Your task to perform on an android device: Open Reddit.com Image 0: 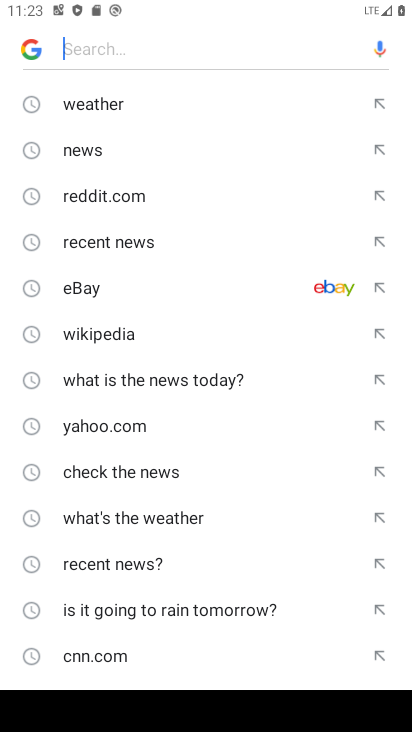
Step 0: press back button
Your task to perform on an android device: Open Reddit.com Image 1: 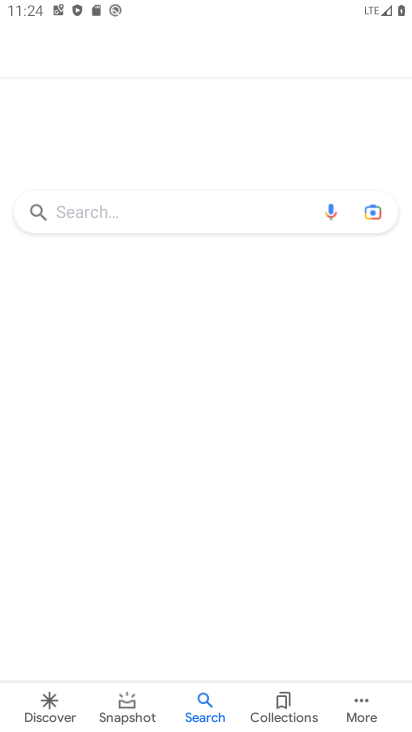
Step 1: press back button
Your task to perform on an android device: Open Reddit.com Image 2: 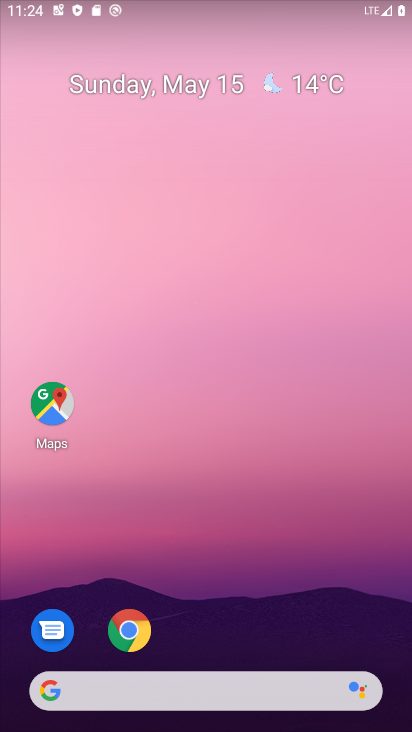
Step 2: click (126, 625)
Your task to perform on an android device: Open Reddit.com Image 3: 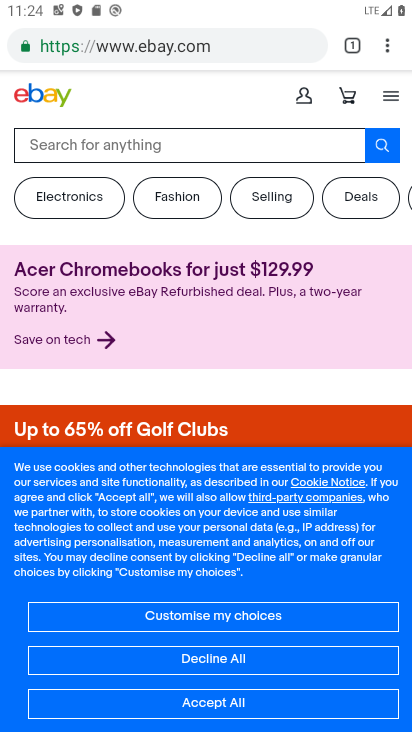
Step 3: click (126, 36)
Your task to perform on an android device: Open Reddit.com Image 4: 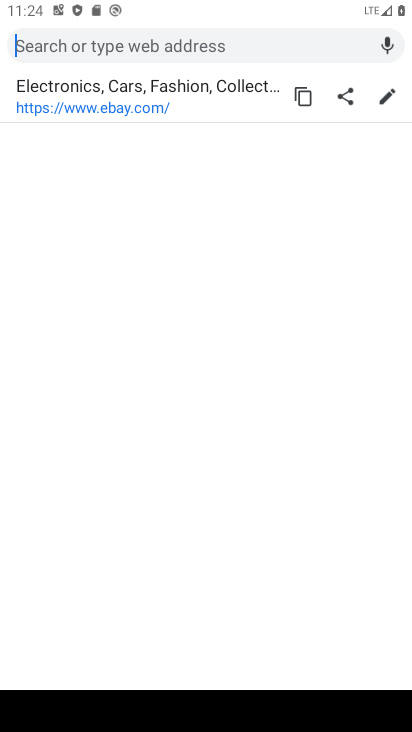
Step 4: type "Reddit.com"
Your task to perform on an android device: Open Reddit.com Image 5: 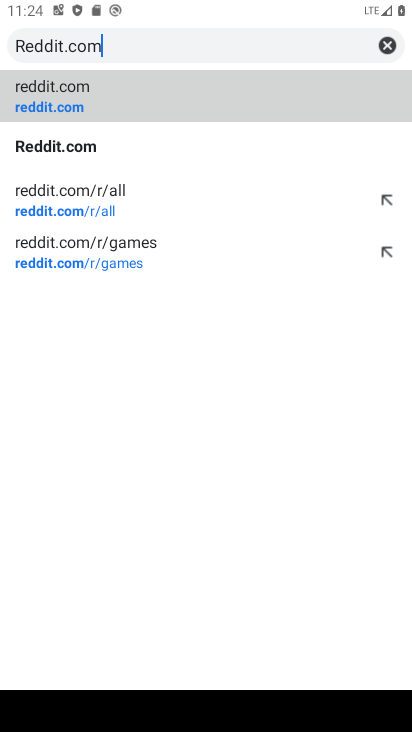
Step 5: type ""
Your task to perform on an android device: Open Reddit.com Image 6: 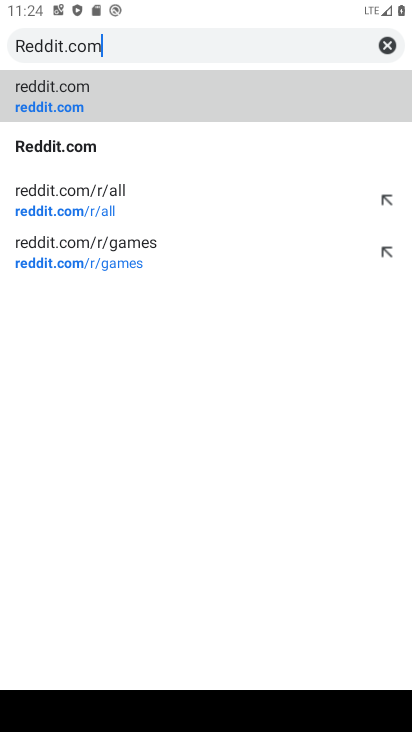
Step 6: click (87, 140)
Your task to perform on an android device: Open Reddit.com Image 7: 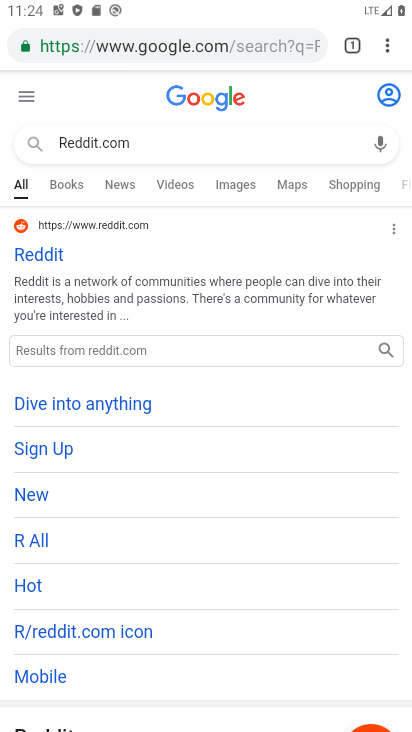
Step 7: click (25, 258)
Your task to perform on an android device: Open Reddit.com Image 8: 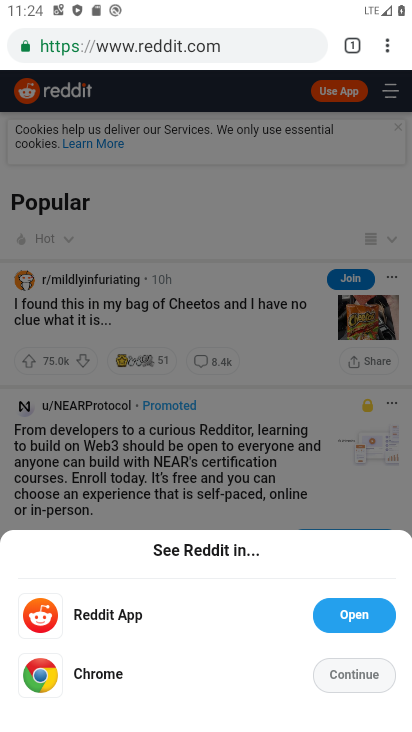
Step 8: task complete